Your task to perform on an android device: Turn off the flashlight Image 0: 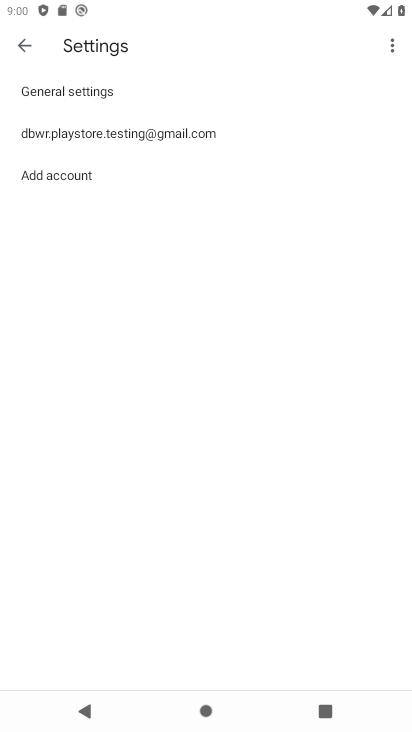
Step 0: press back button
Your task to perform on an android device: Turn off the flashlight Image 1: 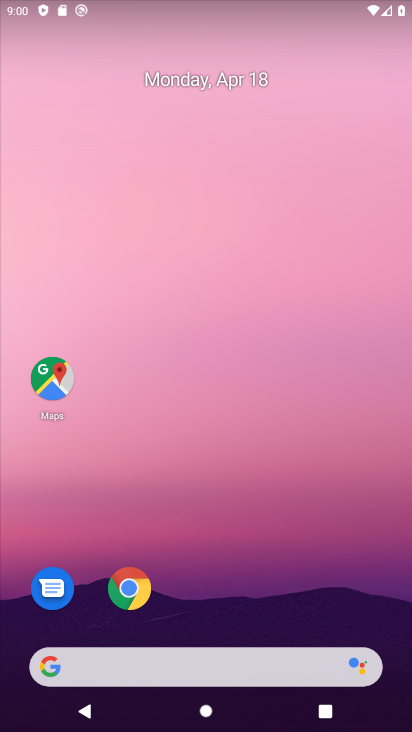
Step 1: task complete